Your task to perform on an android device: Open Chrome and go to settings Image 0: 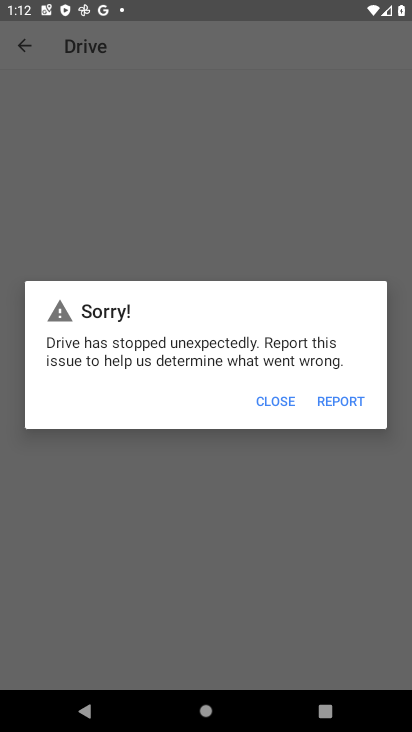
Step 0: press home button
Your task to perform on an android device: Open Chrome and go to settings Image 1: 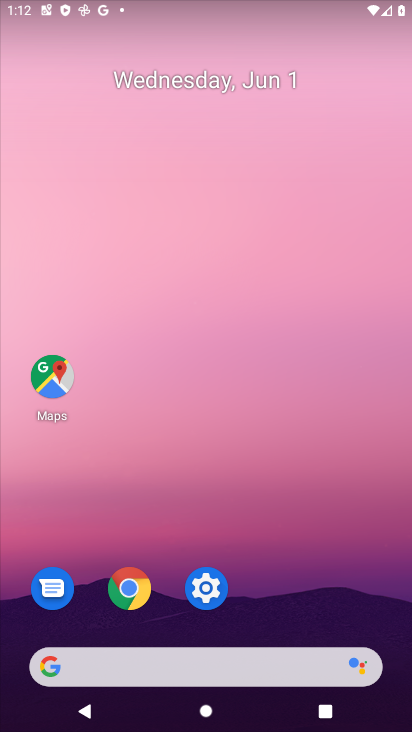
Step 1: click (199, 590)
Your task to perform on an android device: Open Chrome and go to settings Image 2: 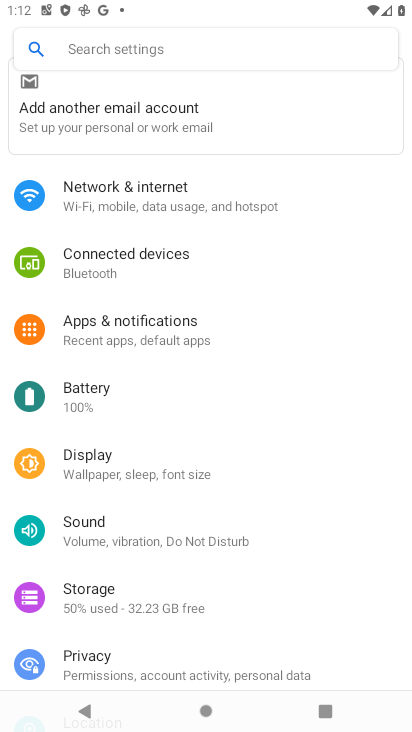
Step 2: press home button
Your task to perform on an android device: Open Chrome and go to settings Image 3: 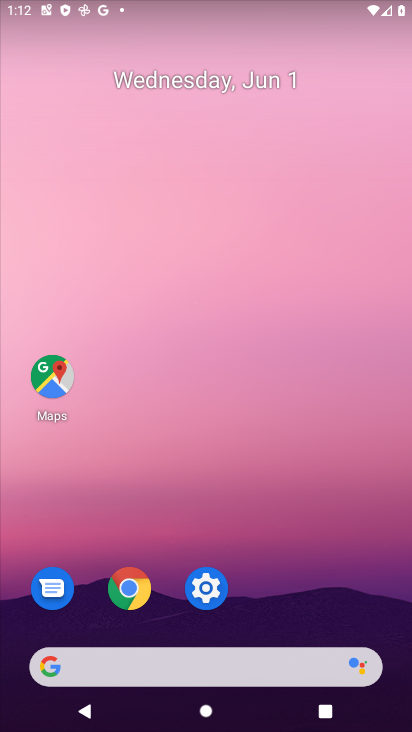
Step 3: click (128, 576)
Your task to perform on an android device: Open Chrome and go to settings Image 4: 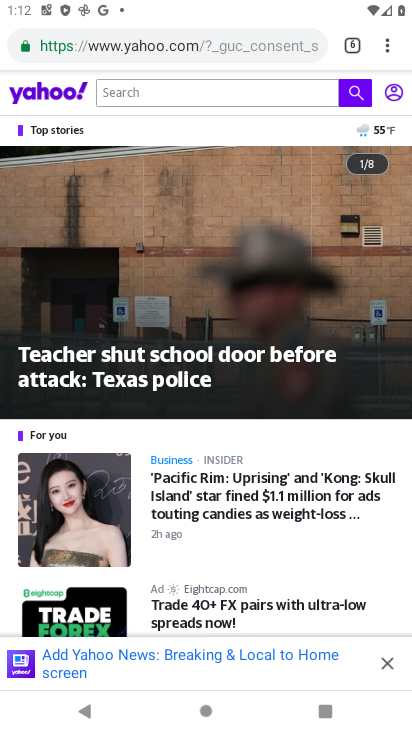
Step 4: click (395, 44)
Your task to perform on an android device: Open Chrome and go to settings Image 5: 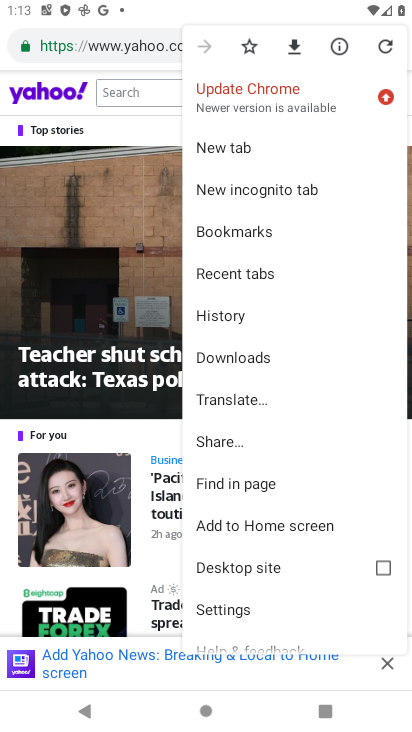
Step 5: click (222, 609)
Your task to perform on an android device: Open Chrome and go to settings Image 6: 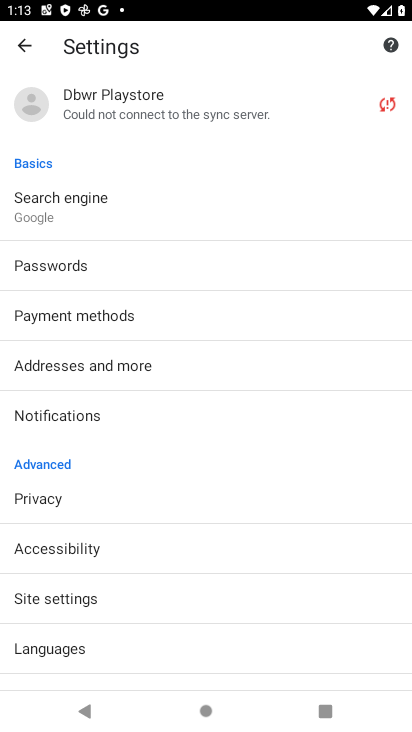
Step 6: task complete